Your task to perform on an android device: toggle location history Image 0: 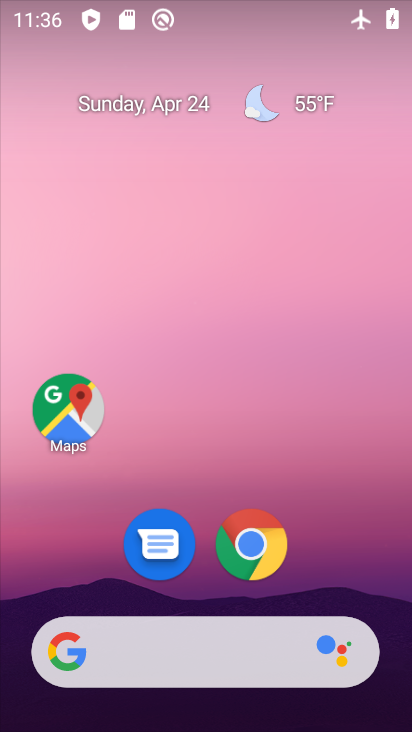
Step 0: drag from (326, 543) to (201, 69)
Your task to perform on an android device: toggle location history Image 1: 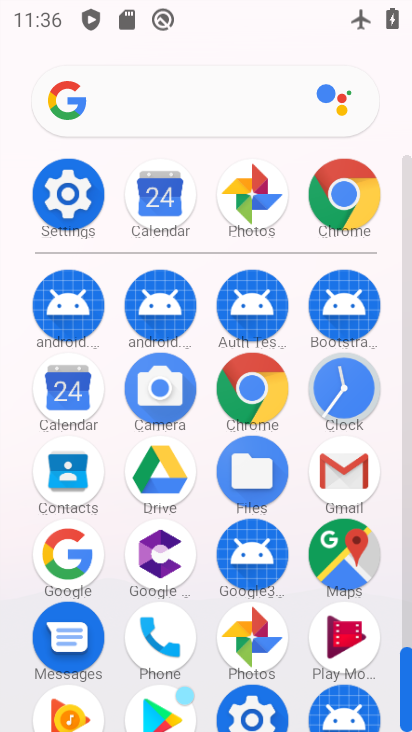
Step 1: click (71, 180)
Your task to perform on an android device: toggle location history Image 2: 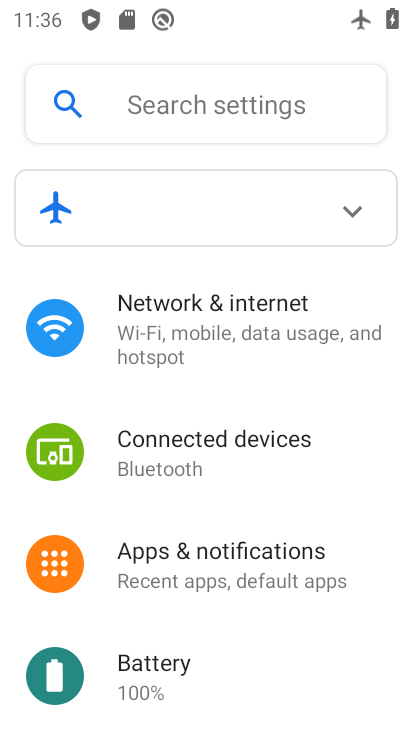
Step 2: drag from (306, 658) to (223, 151)
Your task to perform on an android device: toggle location history Image 3: 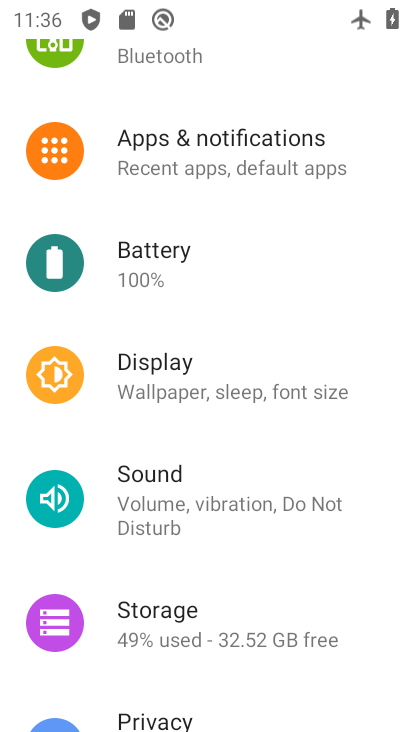
Step 3: drag from (213, 604) to (198, 215)
Your task to perform on an android device: toggle location history Image 4: 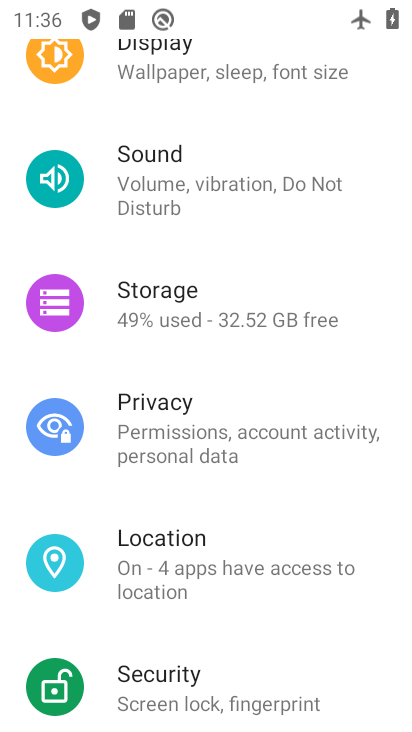
Step 4: click (140, 546)
Your task to perform on an android device: toggle location history Image 5: 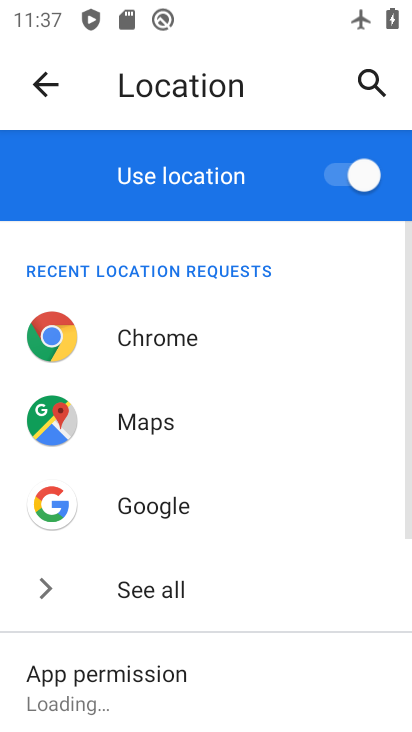
Step 5: drag from (160, 651) to (159, 158)
Your task to perform on an android device: toggle location history Image 6: 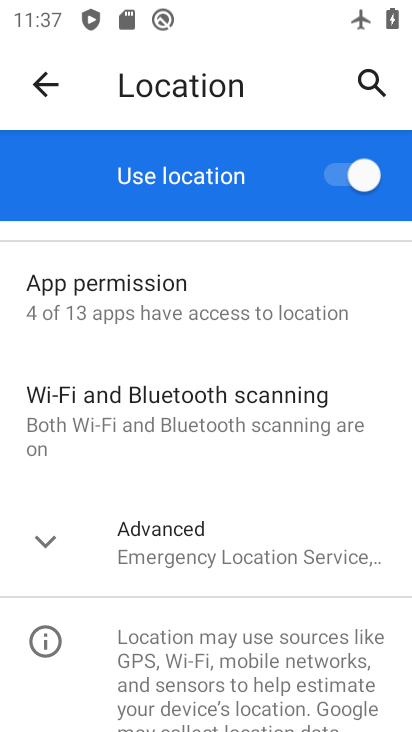
Step 6: click (186, 551)
Your task to perform on an android device: toggle location history Image 7: 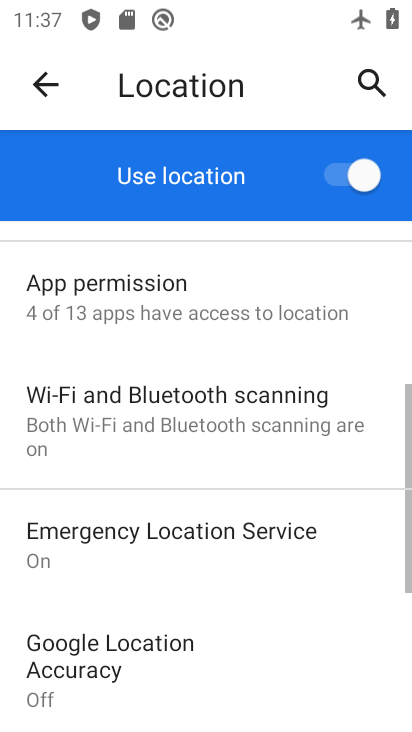
Step 7: drag from (189, 652) to (151, 401)
Your task to perform on an android device: toggle location history Image 8: 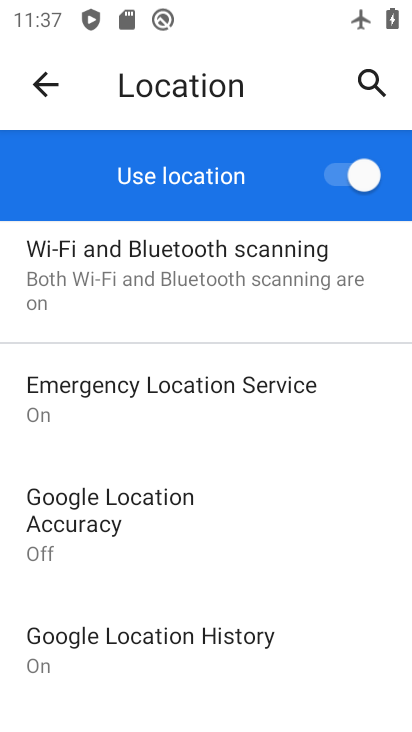
Step 8: click (97, 641)
Your task to perform on an android device: toggle location history Image 9: 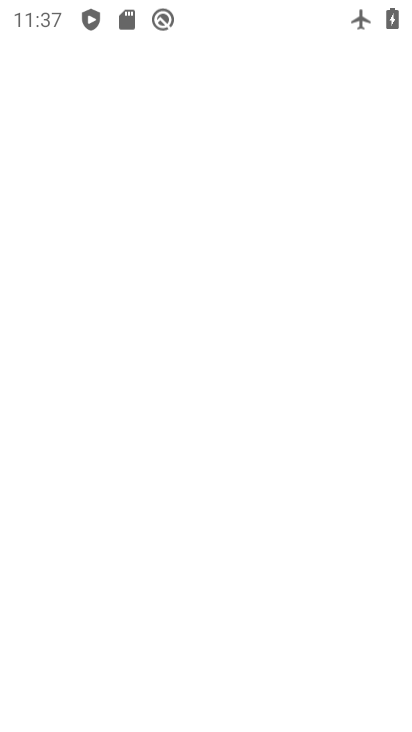
Step 9: drag from (98, 640) to (111, 322)
Your task to perform on an android device: toggle location history Image 10: 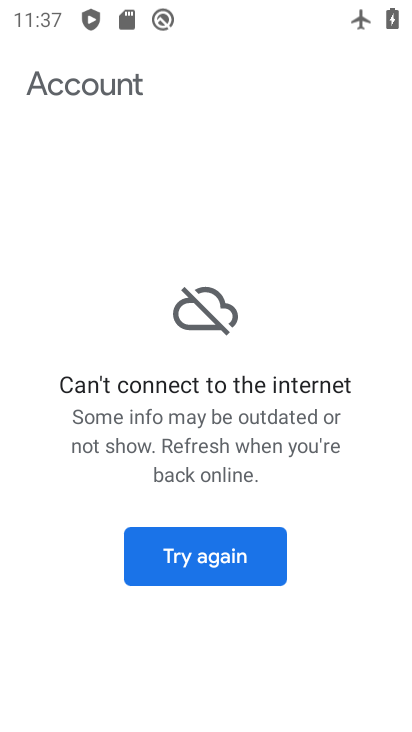
Step 10: click (176, 557)
Your task to perform on an android device: toggle location history Image 11: 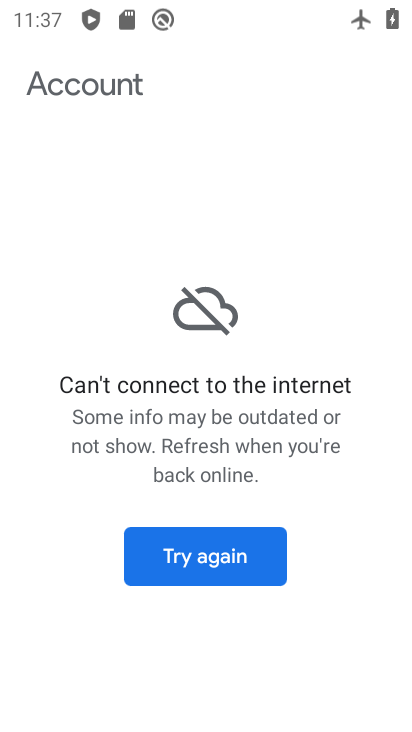
Step 11: click (176, 557)
Your task to perform on an android device: toggle location history Image 12: 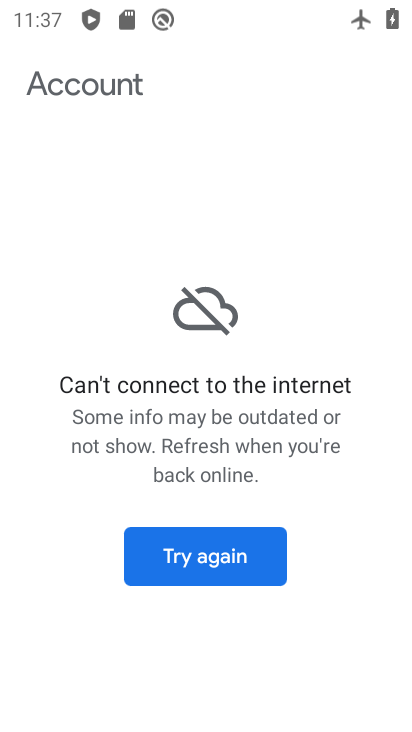
Step 12: press back button
Your task to perform on an android device: toggle location history Image 13: 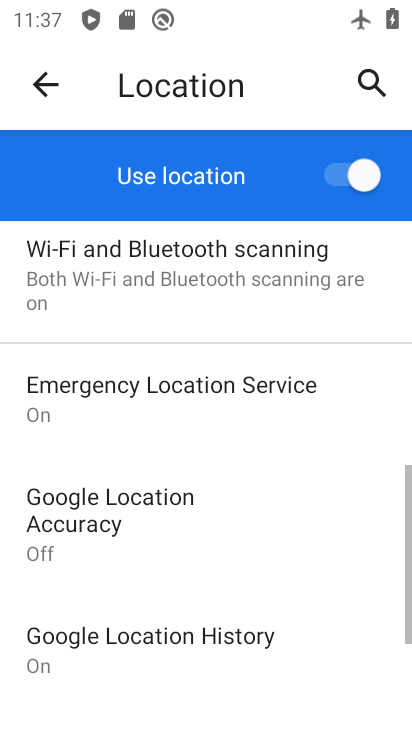
Step 13: click (104, 637)
Your task to perform on an android device: toggle location history Image 14: 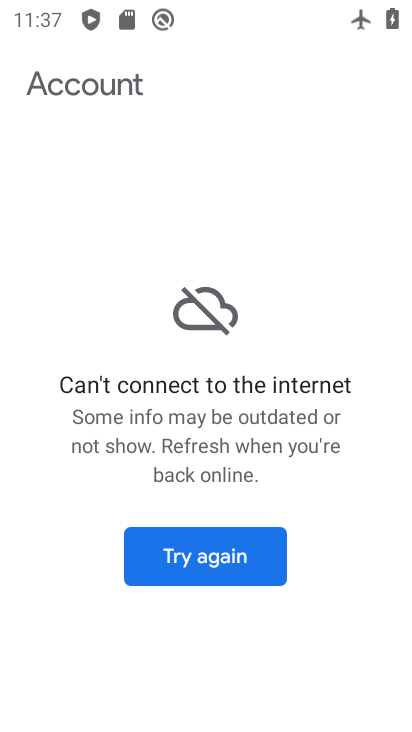
Step 14: task complete